Your task to perform on an android device: Go to location settings Image 0: 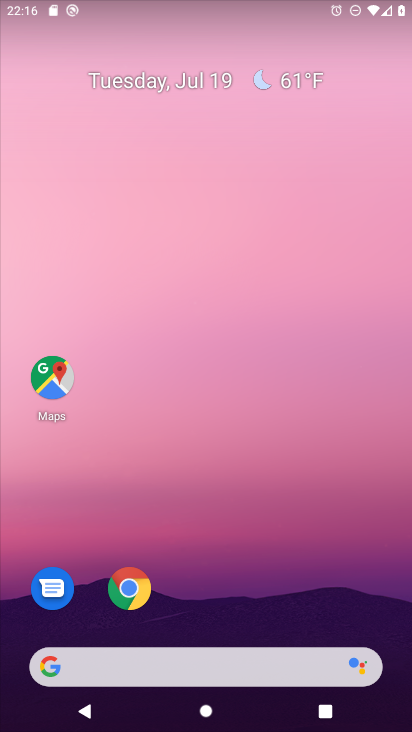
Step 0: press home button
Your task to perform on an android device: Go to location settings Image 1: 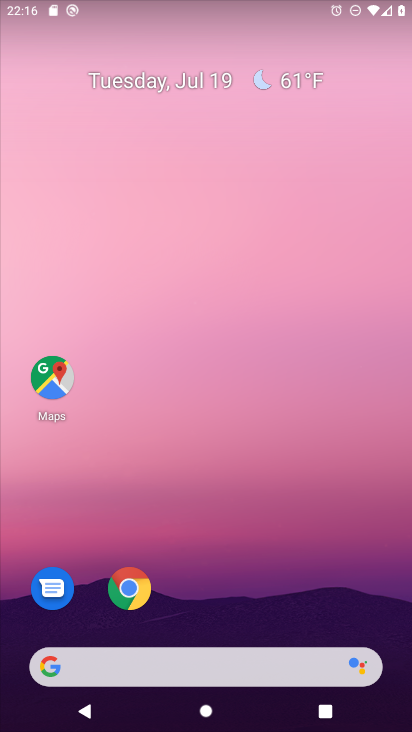
Step 1: drag from (217, 628) to (223, 5)
Your task to perform on an android device: Go to location settings Image 2: 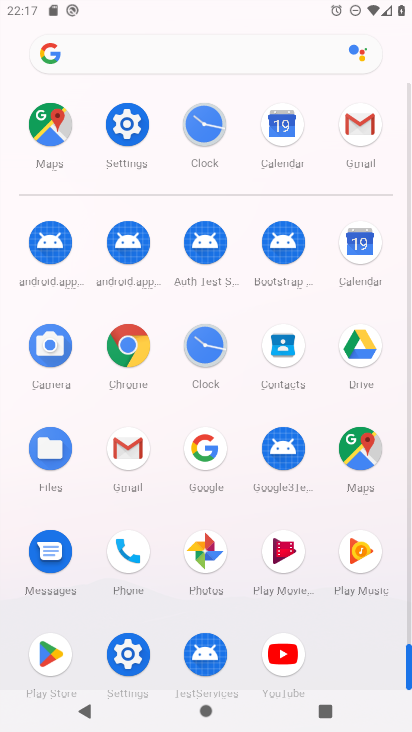
Step 2: click (125, 119)
Your task to perform on an android device: Go to location settings Image 3: 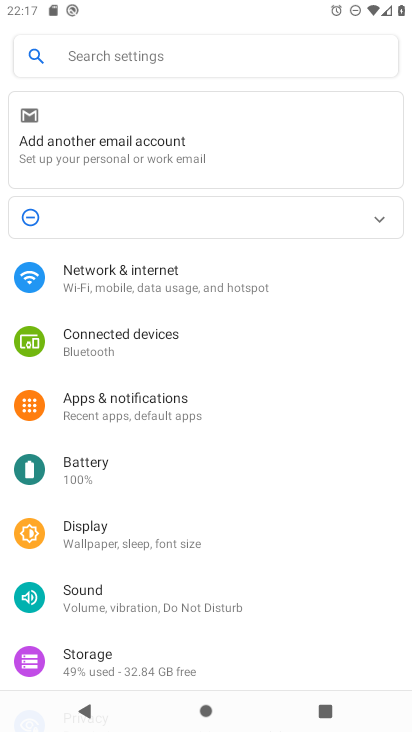
Step 3: drag from (147, 645) to (175, 220)
Your task to perform on an android device: Go to location settings Image 4: 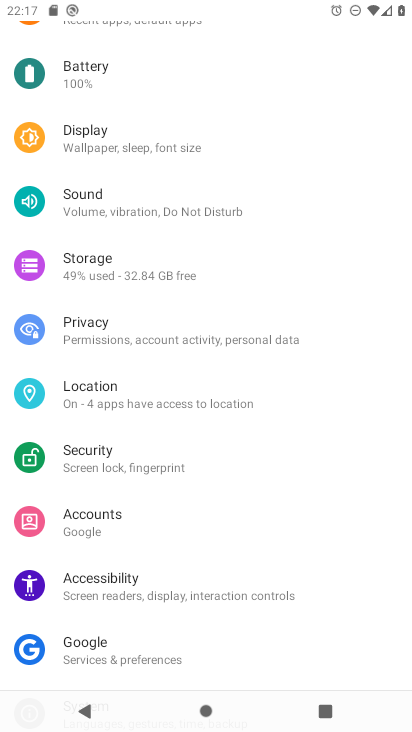
Step 4: click (128, 385)
Your task to perform on an android device: Go to location settings Image 5: 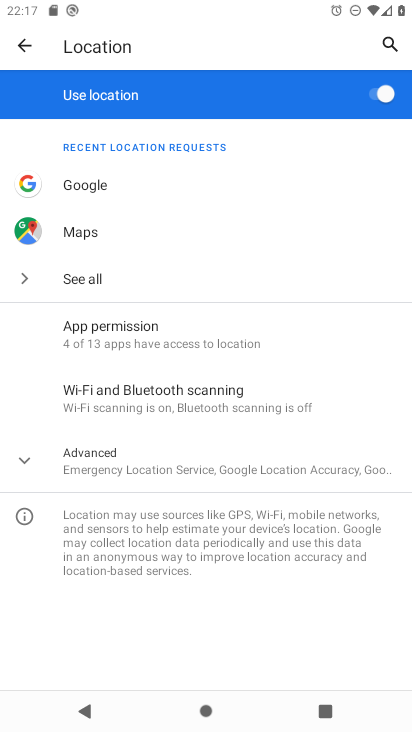
Step 5: click (22, 458)
Your task to perform on an android device: Go to location settings Image 6: 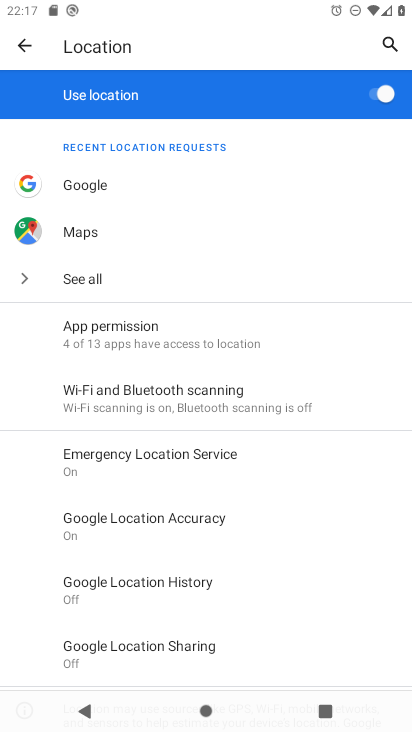
Step 6: task complete